Your task to perform on an android device: Go to Google maps Image 0: 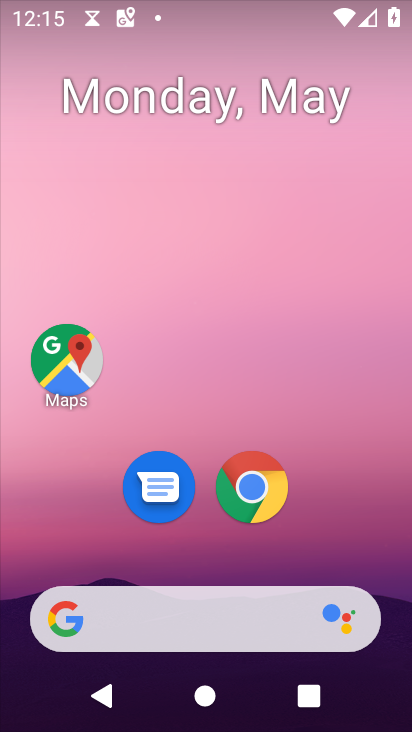
Step 0: click (43, 356)
Your task to perform on an android device: Go to Google maps Image 1: 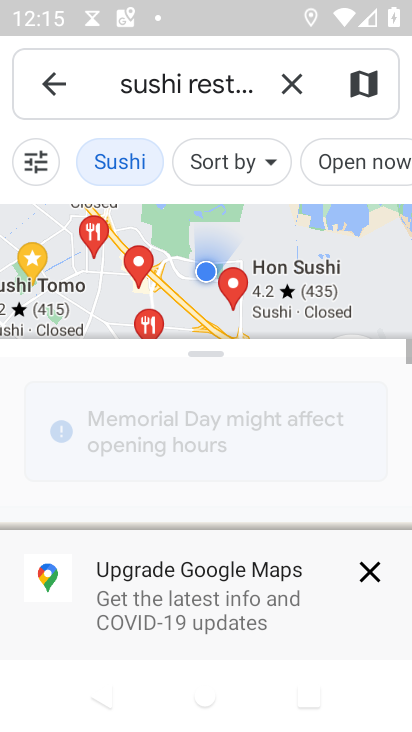
Step 1: click (33, 90)
Your task to perform on an android device: Go to Google maps Image 2: 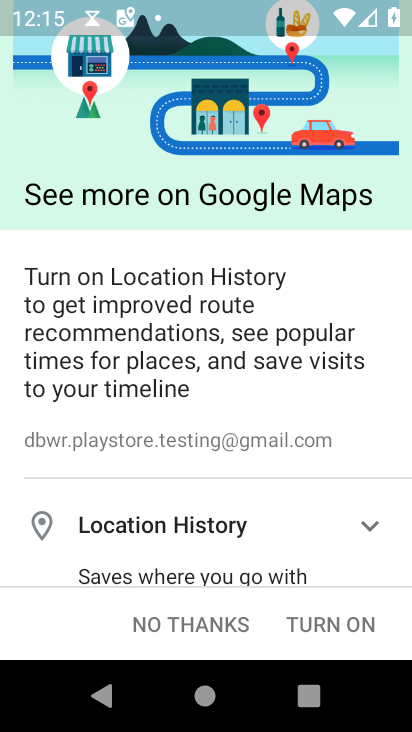
Step 2: click (194, 613)
Your task to perform on an android device: Go to Google maps Image 3: 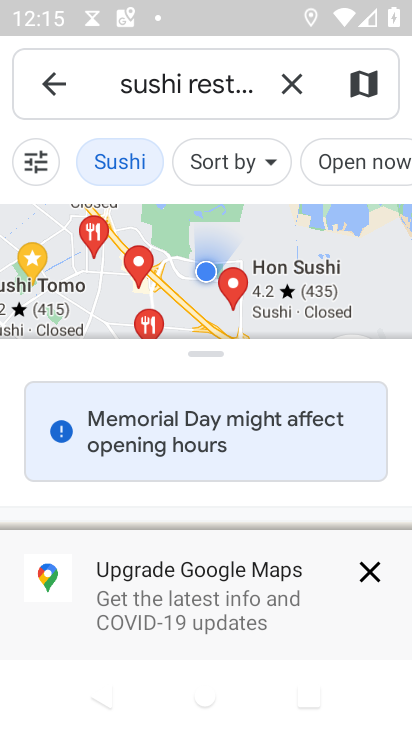
Step 3: click (58, 93)
Your task to perform on an android device: Go to Google maps Image 4: 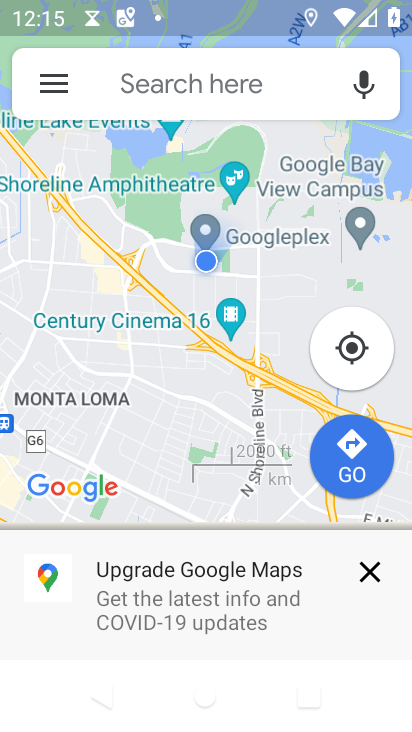
Step 4: task complete